Your task to perform on an android device: turn off notifications in google photos Image 0: 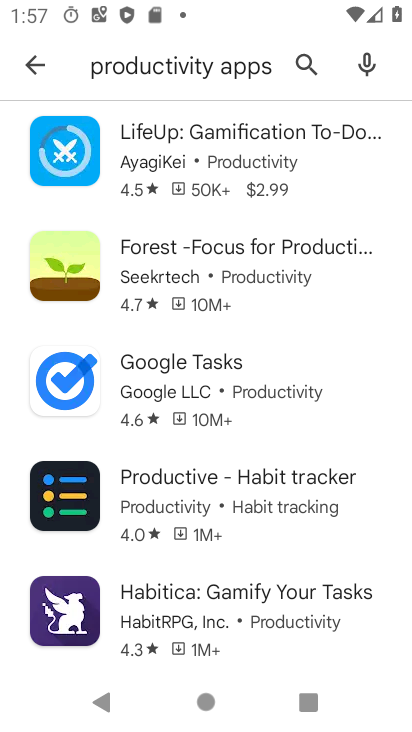
Step 0: press home button
Your task to perform on an android device: turn off notifications in google photos Image 1: 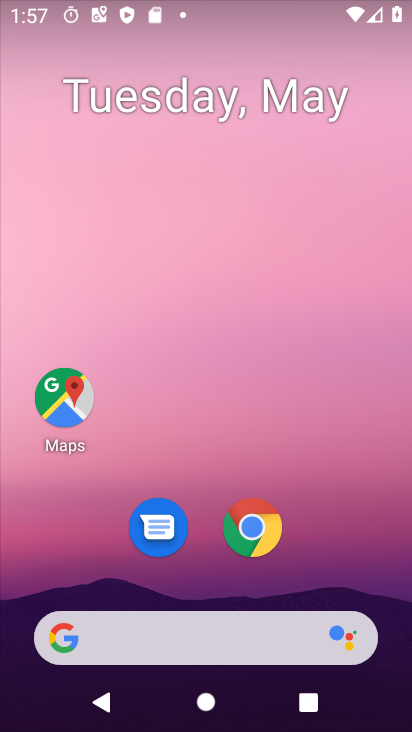
Step 1: drag from (153, 669) to (283, 172)
Your task to perform on an android device: turn off notifications in google photos Image 2: 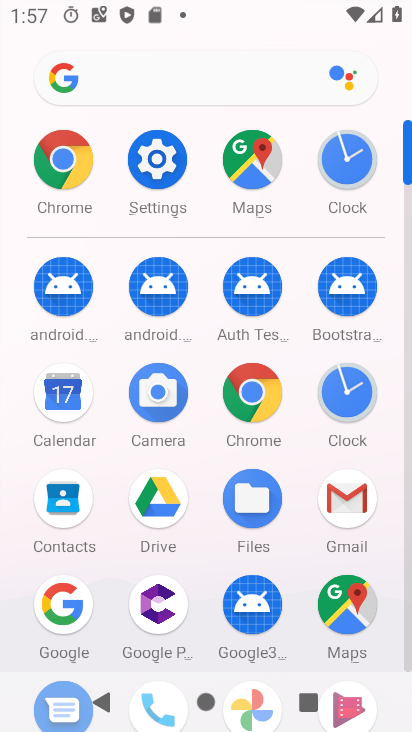
Step 2: drag from (193, 554) to (186, 362)
Your task to perform on an android device: turn off notifications in google photos Image 3: 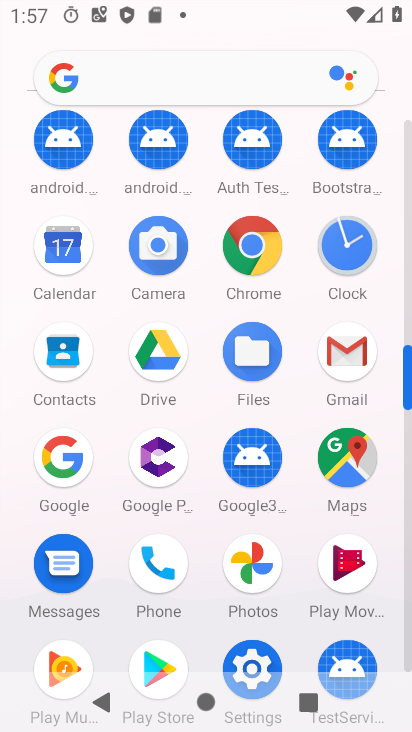
Step 3: click (259, 571)
Your task to perform on an android device: turn off notifications in google photos Image 4: 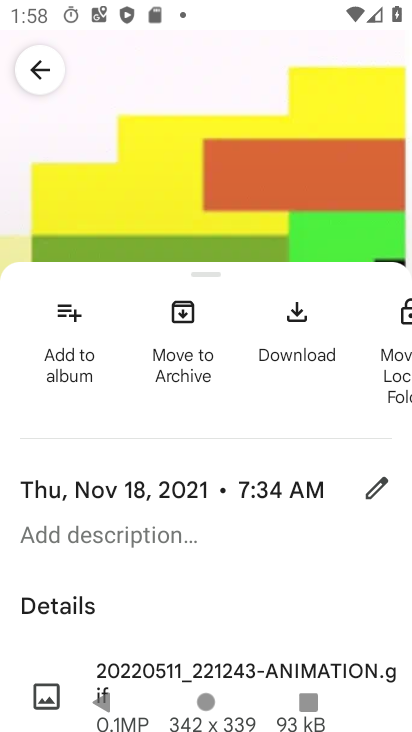
Step 4: click (39, 68)
Your task to perform on an android device: turn off notifications in google photos Image 5: 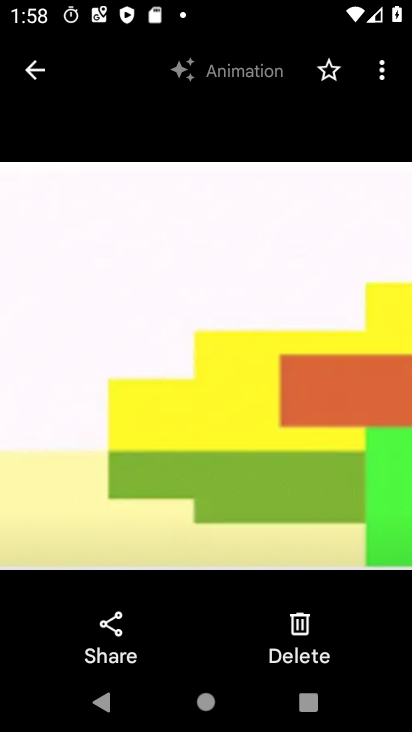
Step 5: click (34, 65)
Your task to perform on an android device: turn off notifications in google photos Image 6: 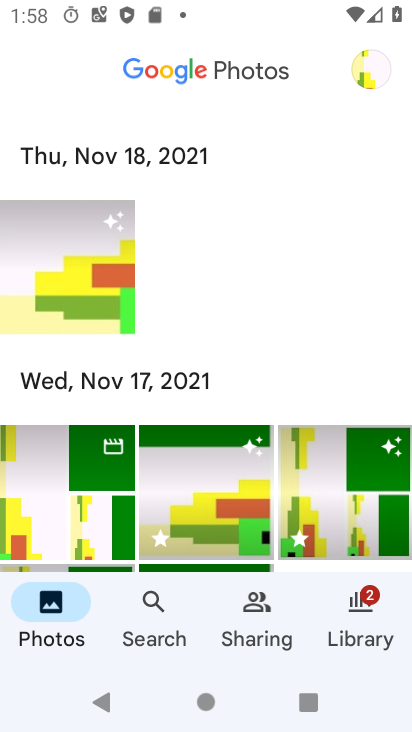
Step 6: click (353, 75)
Your task to perform on an android device: turn off notifications in google photos Image 7: 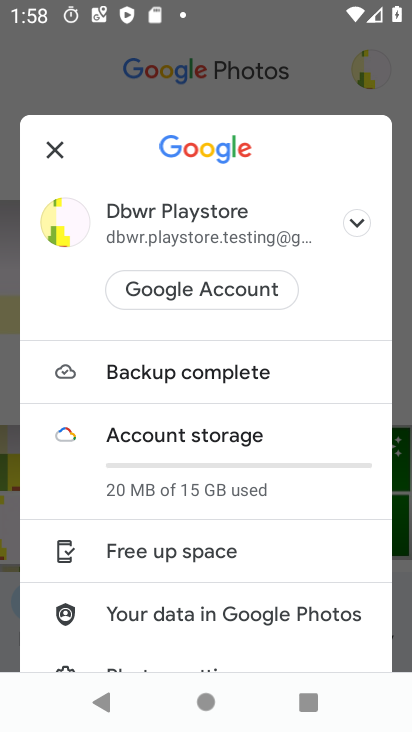
Step 7: drag from (253, 534) to (276, 383)
Your task to perform on an android device: turn off notifications in google photos Image 8: 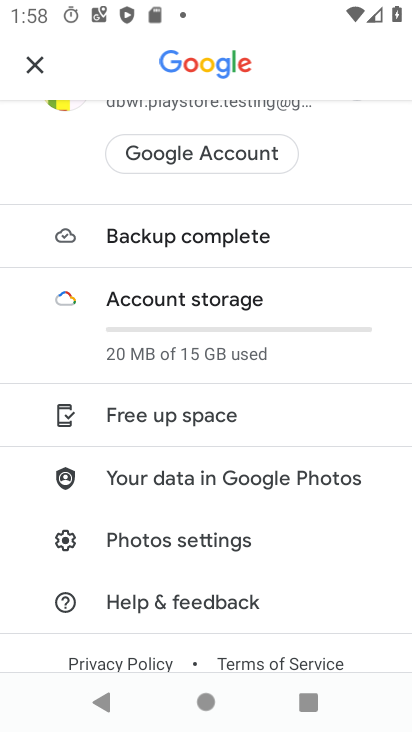
Step 8: click (196, 538)
Your task to perform on an android device: turn off notifications in google photos Image 9: 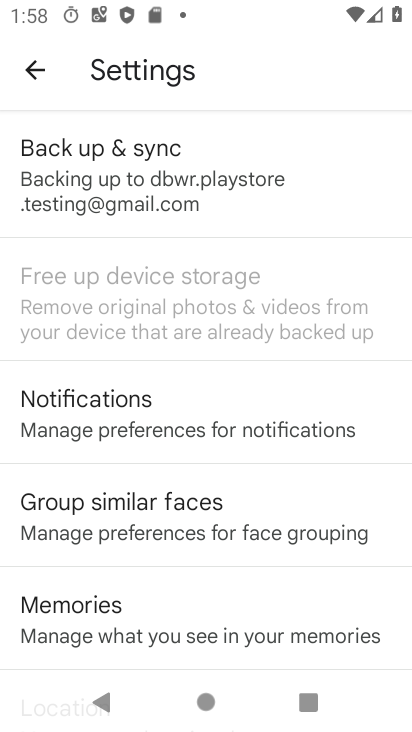
Step 9: click (102, 429)
Your task to perform on an android device: turn off notifications in google photos Image 10: 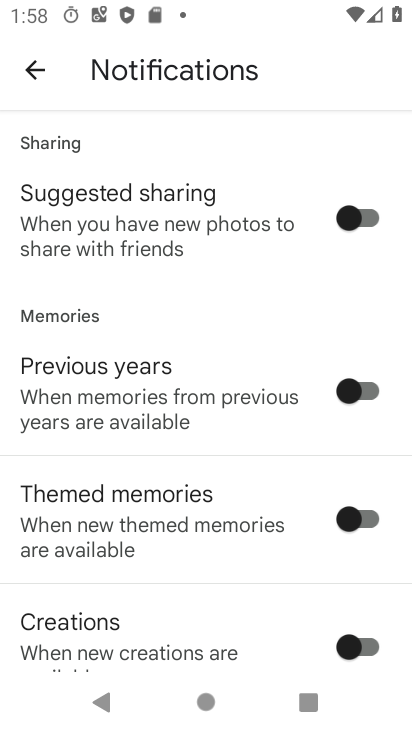
Step 10: task complete